Your task to perform on an android device: check out phone information Image 0: 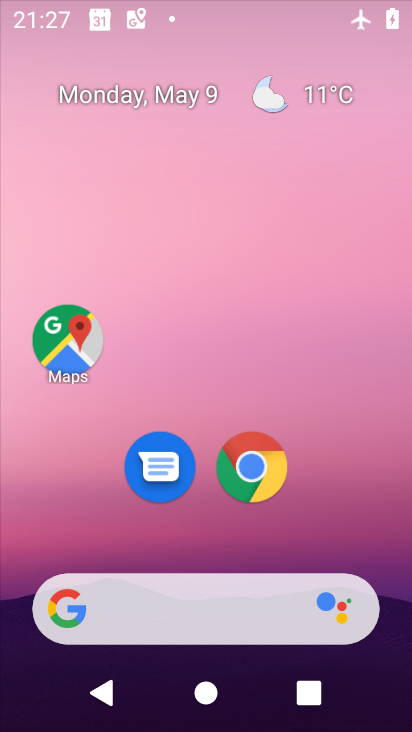
Step 0: drag from (298, 518) to (308, 286)
Your task to perform on an android device: check out phone information Image 1: 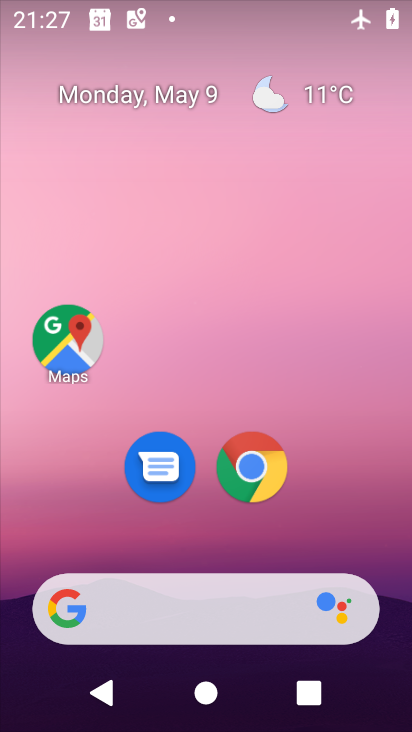
Step 1: drag from (305, 492) to (296, 243)
Your task to perform on an android device: check out phone information Image 2: 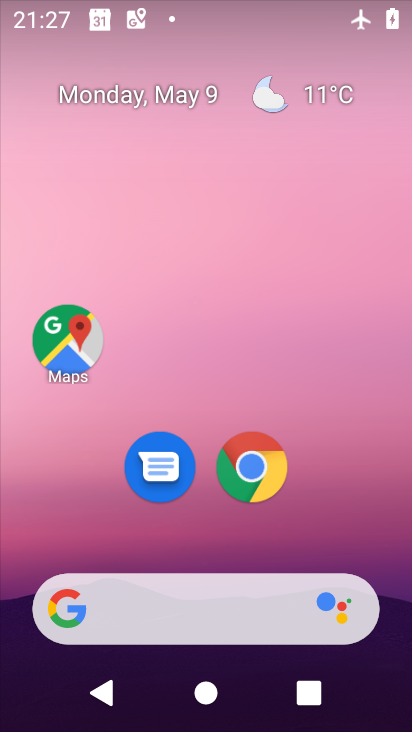
Step 2: drag from (310, 437) to (306, 119)
Your task to perform on an android device: check out phone information Image 3: 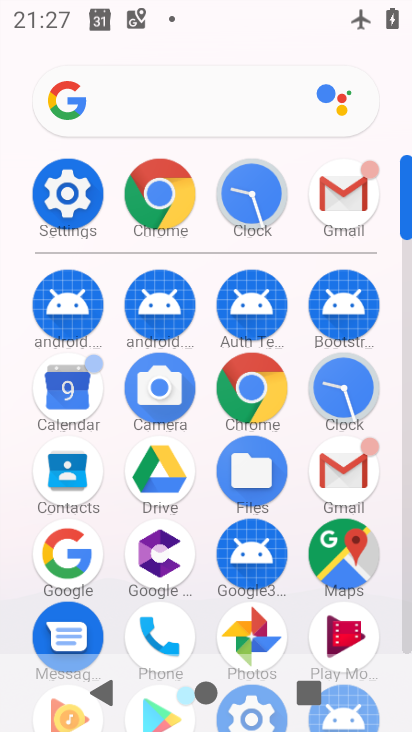
Step 3: click (64, 172)
Your task to perform on an android device: check out phone information Image 4: 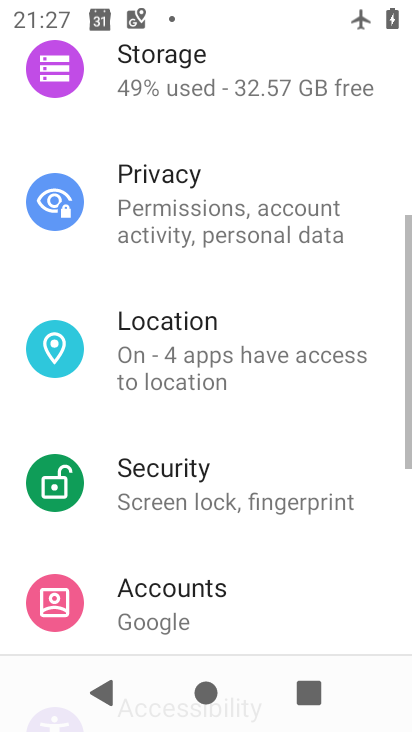
Step 4: drag from (239, 578) to (300, 75)
Your task to perform on an android device: check out phone information Image 5: 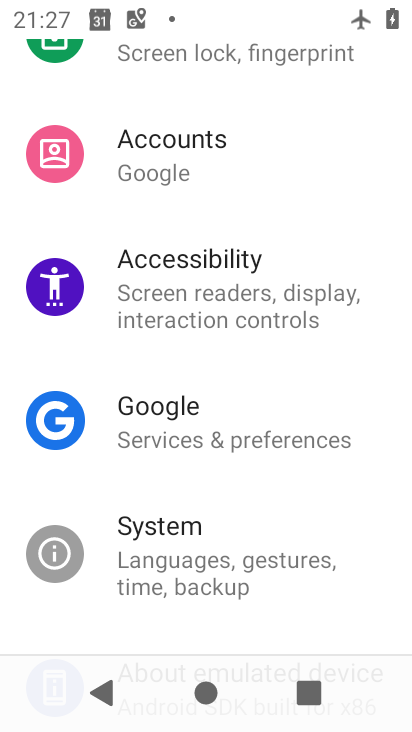
Step 5: drag from (198, 582) to (277, 201)
Your task to perform on an android device: check out phone information Image 6: 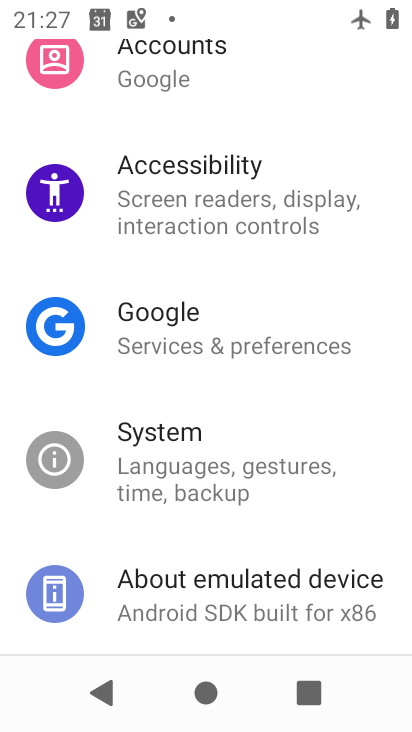
Step 6: click (282, 602)
Your task to perform on an android device: check out phone information Image 7: 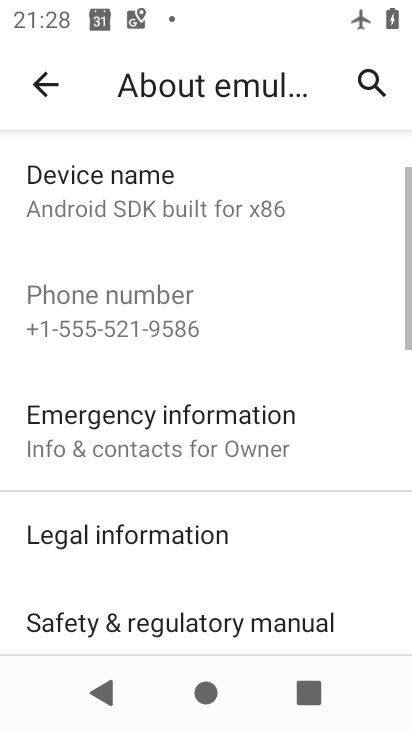
Step 7: task complete